Your task to perform on an android device: Open location settings Image 0: 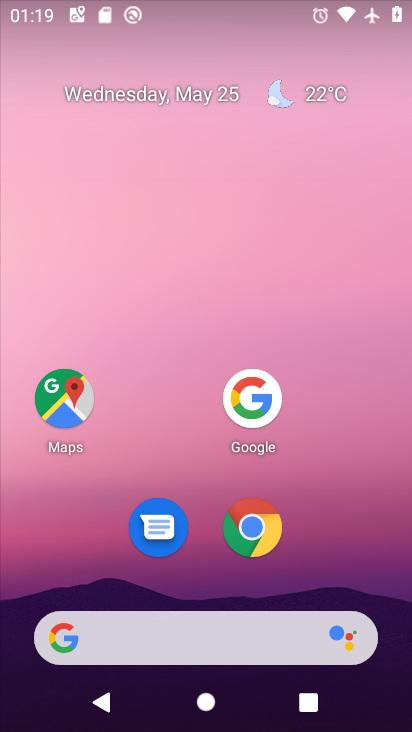
Step 0: press home button
Your task to perform on an android device: Open location settings Image 1: 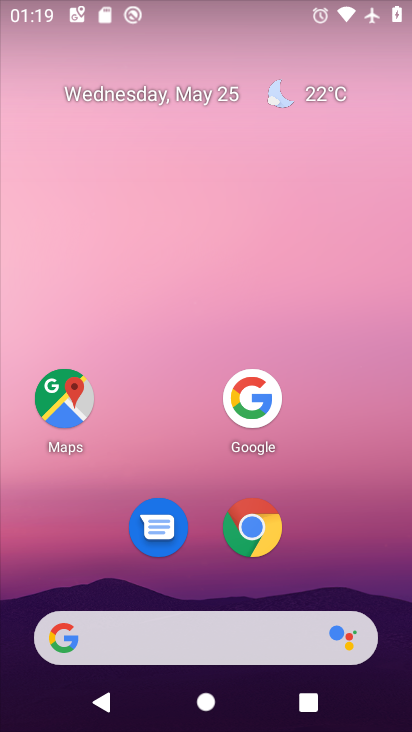
Step 1: drag from (182, 653) to (313, 234)
Your task to perform on an android device: Open location settings Image 2: 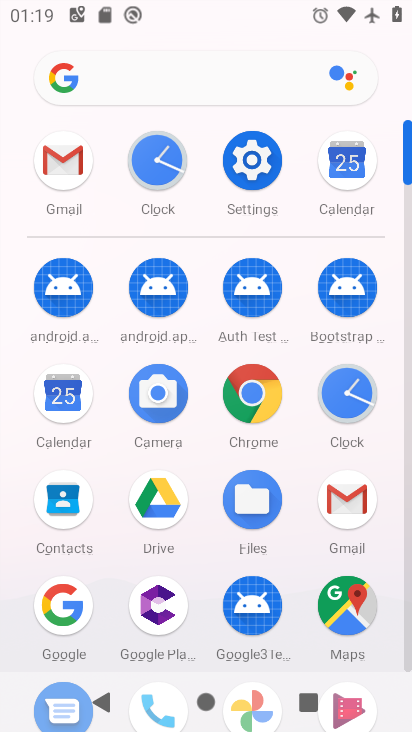
Step 2: click (244, 175)
Your task to perform on an android device: Open location settings Image 3: 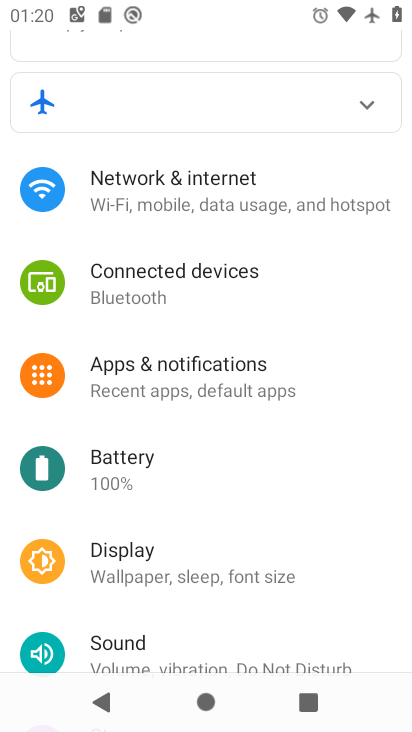
Step 3: drag from (193, 589) to (272, 291)
Your task to perform on an android device: Open location settings Image 4: 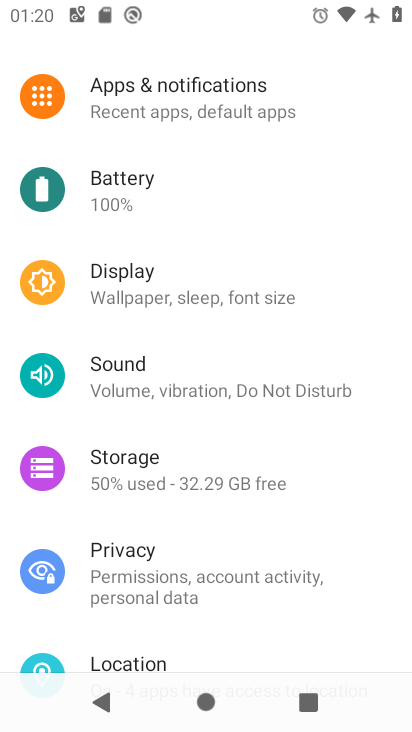
Step 4: drag from (279, 379) to (339, 229)
Your task to perform on an android device: Open location settings Image 5: 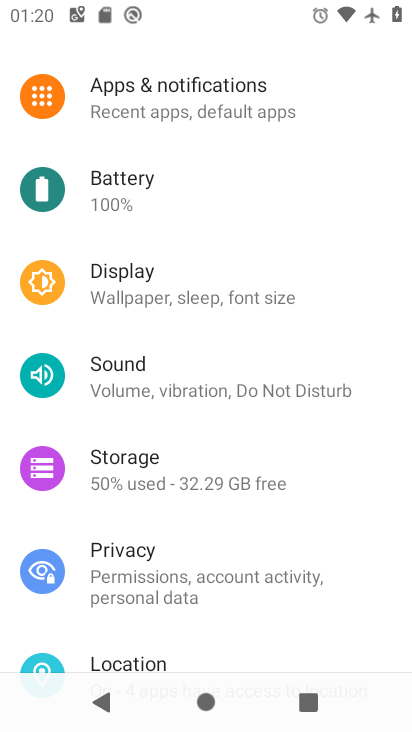
Step 5: drag from (288, 554) to (362, 160)
Your task to perform on an android device: Open location settings Image 6: 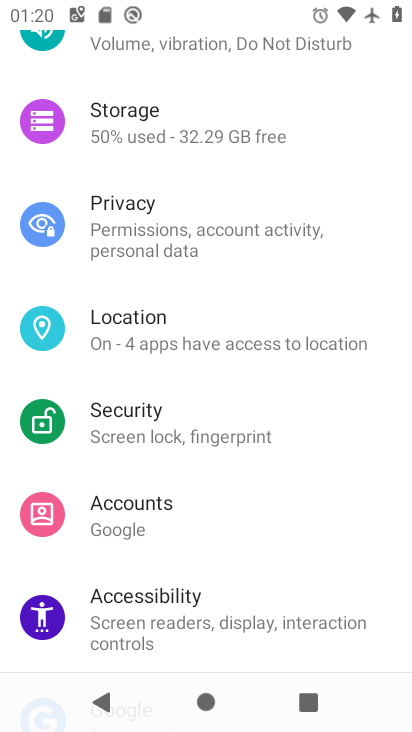
Step 6: click (136, 330)
Your task to perform on an android device: Open location settings Image 7: 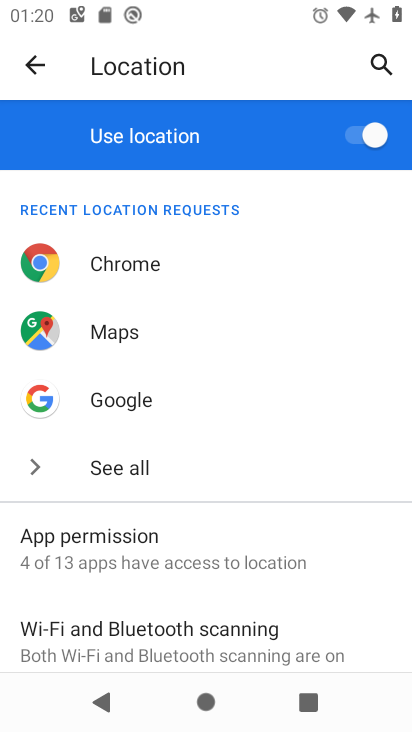
Step 7: task complete